Your task to perform on an android device: Turn off the flashlight Image 0: 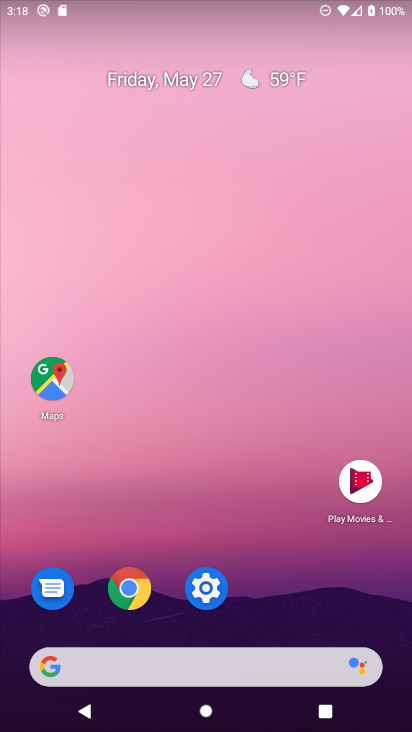
Step 0: drag from (243, 544) to (195, 72)
Your task to perform on an android device: Turn off the flashlight Image 1: 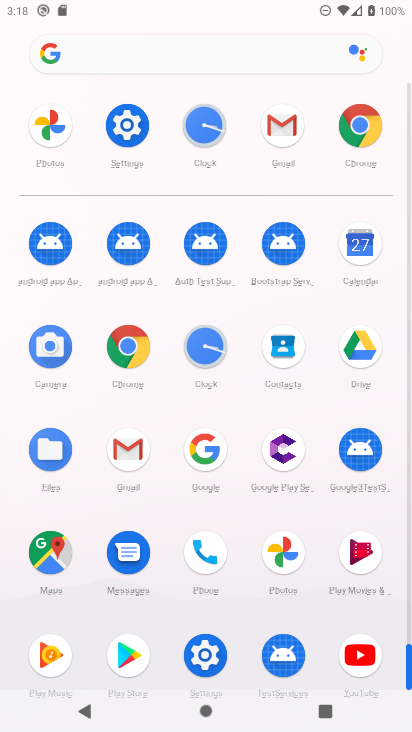
Step 1: drag from (177, 472) to (178, 50)
Your task to perform on an android device: Turn off the flashlight Image 2: 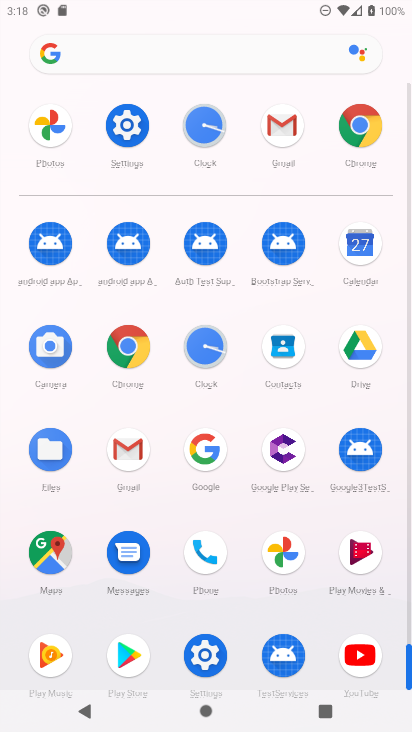
Step 2: drag from (204, 535) to (200, 189)
Your task to perform on an android device: Turn off the flashlight Image 3: 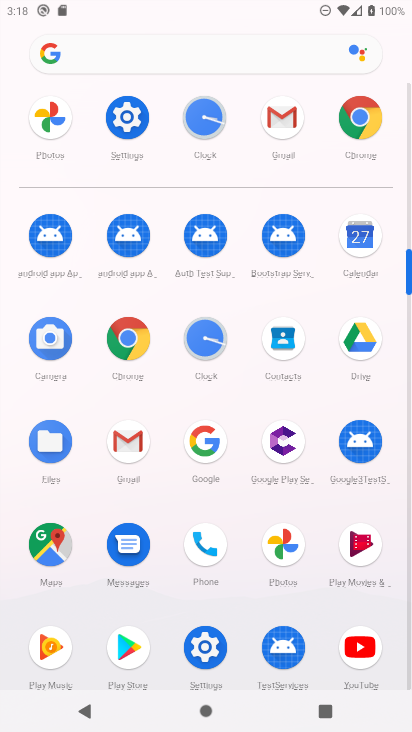
Step 3: drag from (184, 513) to (197, 28)
Your task to perform on an android device: Turn off the flashlight Image 4: 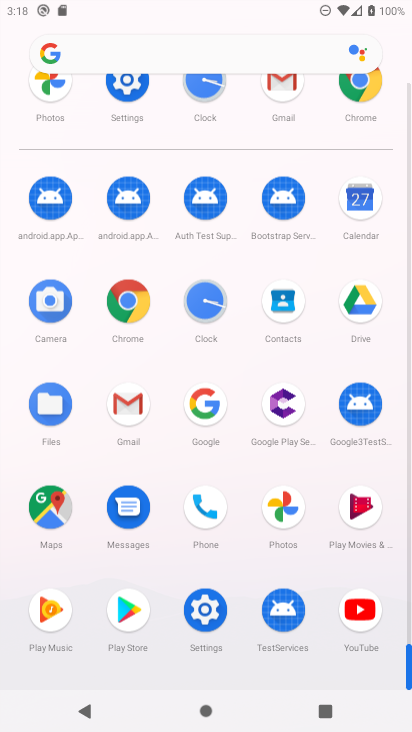
Step 4: drag from (180, 558) to (155, 97)
Your task to perform on an android device: Turn off the flashlight Image 5: 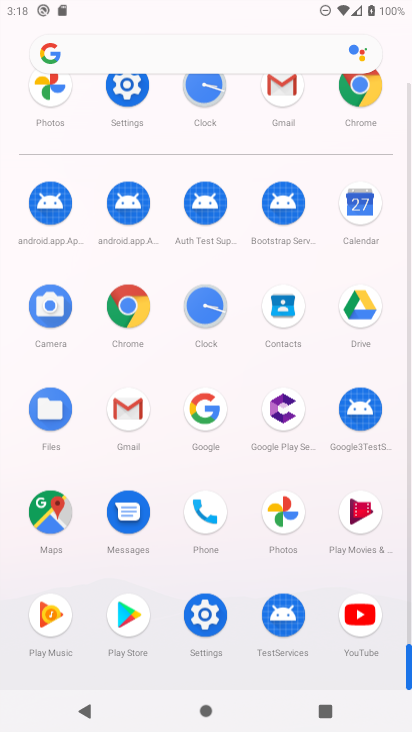
Step 5: drag from (125, 576) to (144, 68)
Your task to perform on an android device: Turn off the flashlight Image 6: 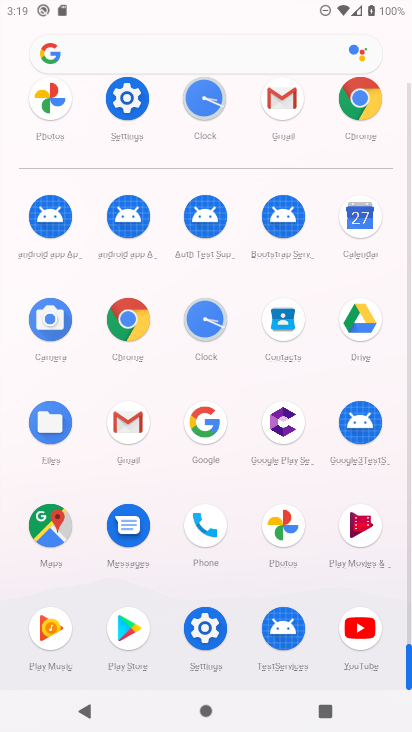
Step 6: drag from (154, 449) to (120, 72)
Your task to perform on an android device: Turn off the flashlight Image 7: 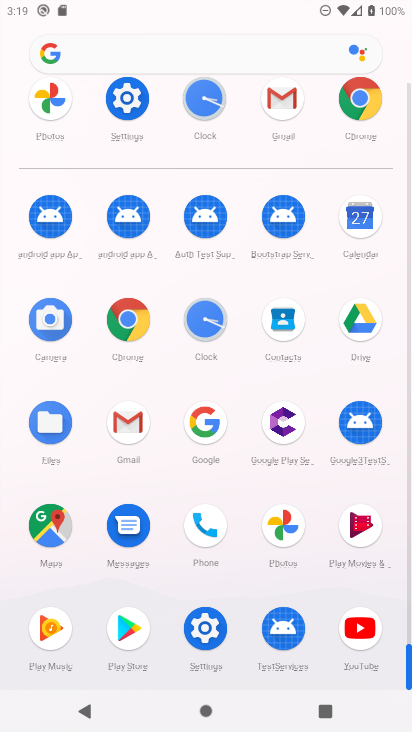
Step 7: drag from (217, 553) to (247, 7)
Your task to perform on an android device: Turn off the flashlight Image 8: 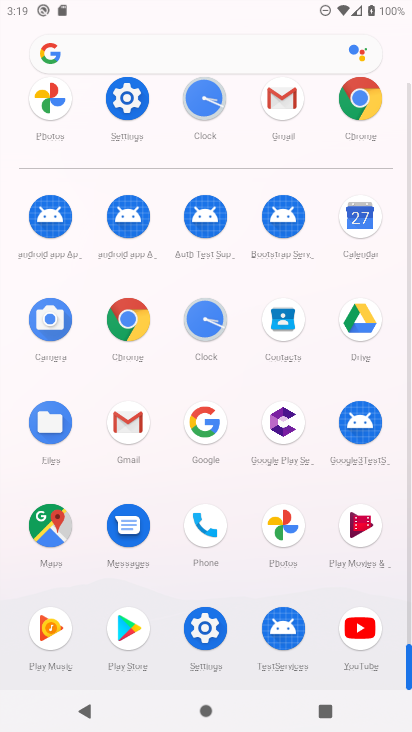
Step 8: click (121, 598)
Your task to perform on an android device: Turn off the flashlight Image 9: 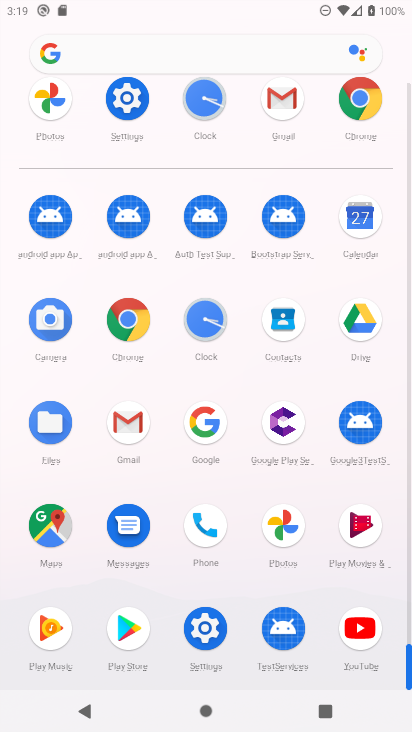
Step 9: drag from (131, 413) to (131, 69)
Your task to perform on an android device: Turn off the flashlight Image 10: 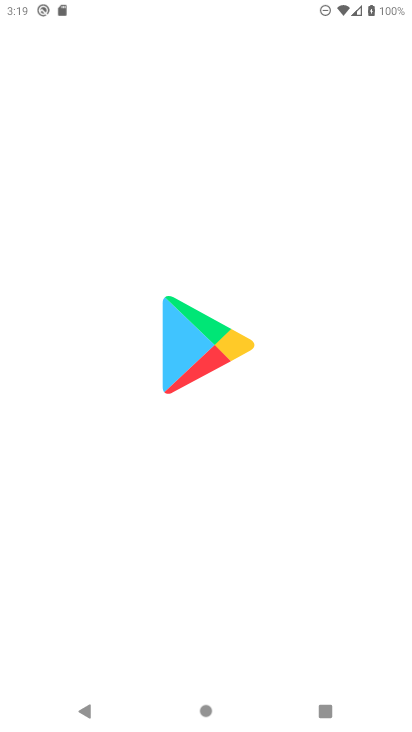
Step 10: drag from (188, 568) to (136, 33)
Your task to perform on an android device: Turn off the flashlight Image 11: 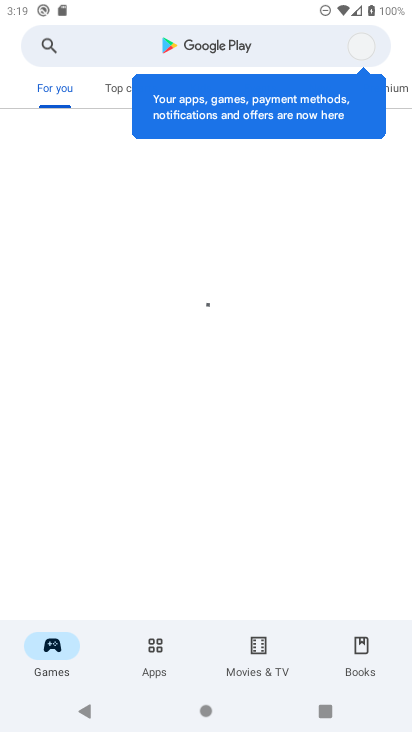
Step 11: press back button
Your task to perform on an android device: Turn off the flashlight Image 12: 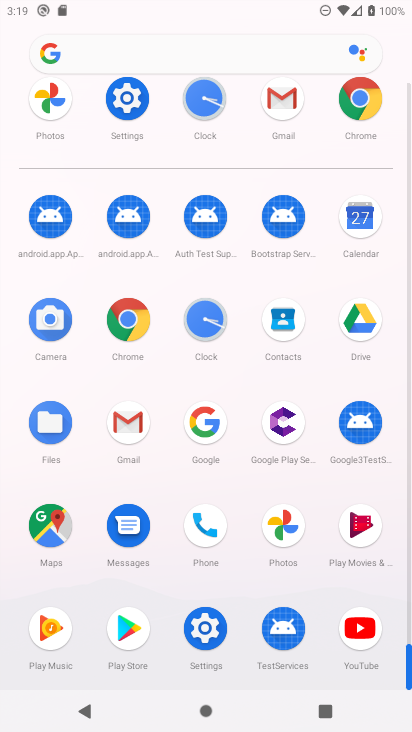
Step 12: drag from (233, 184) to (228, 84)
Your task to perform on an android device: Turn off the flashlight Image 13: 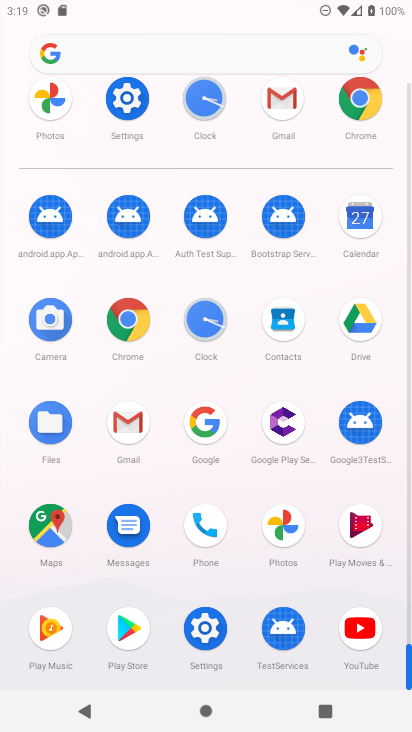
Step 13: click (265, 104)
Your task to perform on an android device: Turn off the flashlight Image 14: 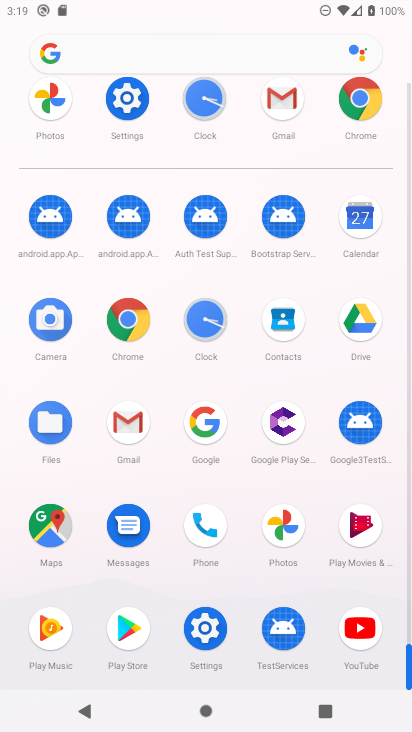
Step 14: drag from (262, 258) to (262, 119)
Your task to perform on an android device: Turn off the flashlight Image 15: 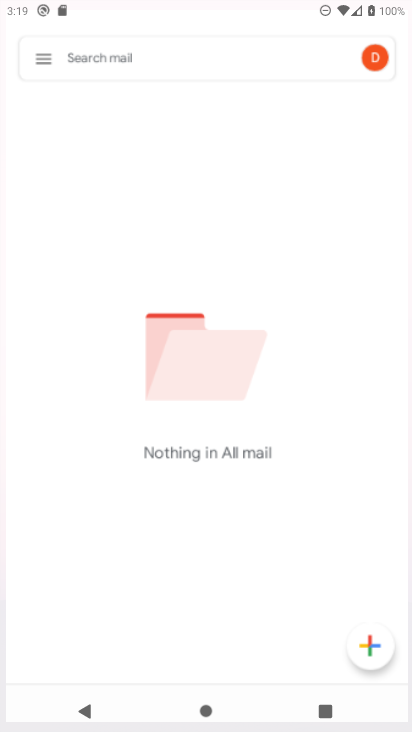
Step 15: drag from (231, 561) to (221, 50)
Your task to perform on an android device: Turn off the flashlight Image 16: 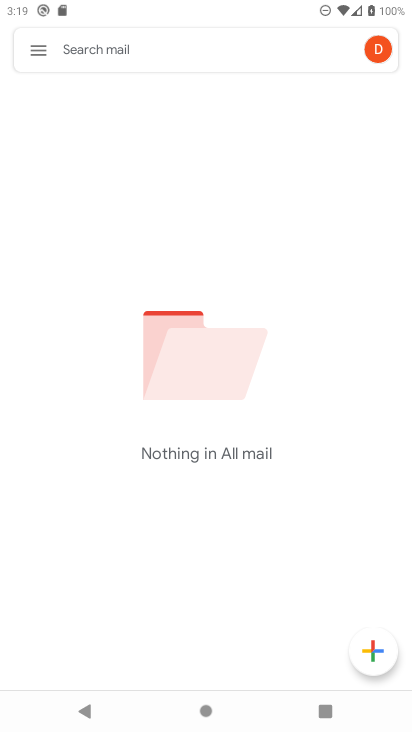
Step 16: press back button
Your task to perform on an android device: Turn off the flashlight Image 17: 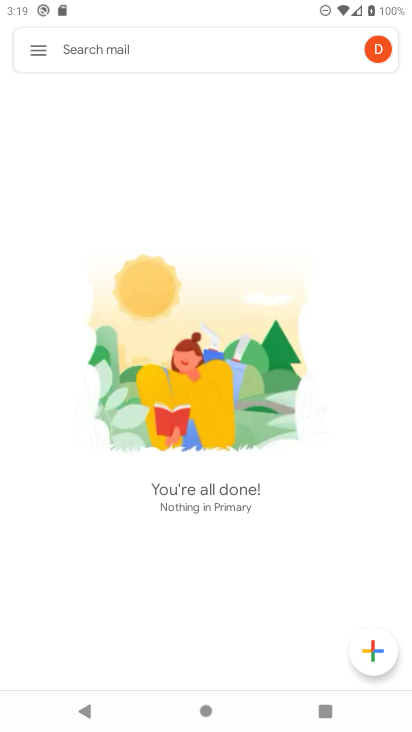
Step 17: drag from (226, 476) to (138, 98)
Your task to perform on an android device: Turn off the flashlight Image 18: 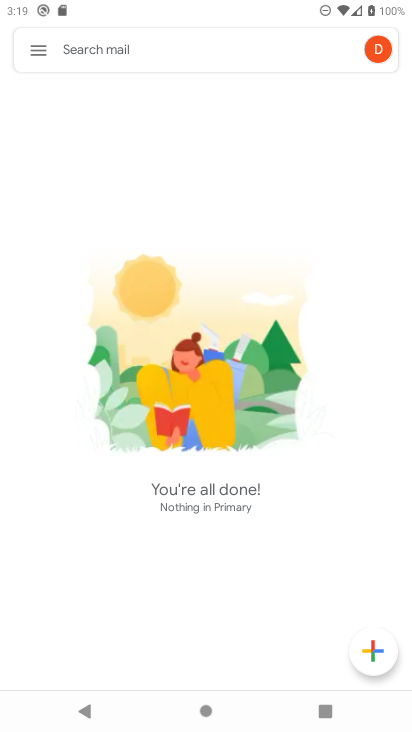
Step 18: drag from (203, 511) to (140, 24)
Your task to perform on an android device: Turn off the flashlight Image 19: 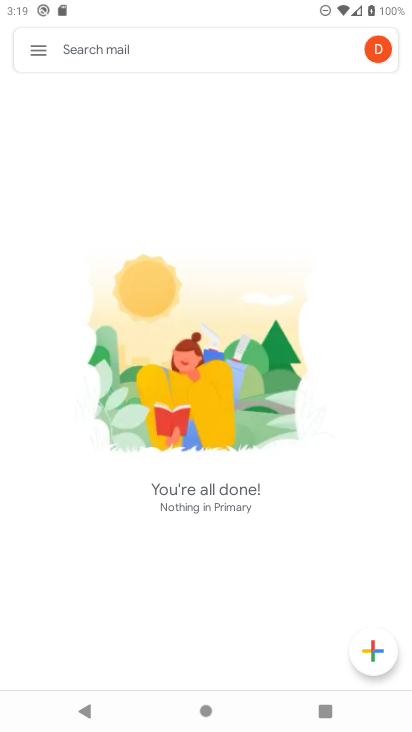
Step 19: drag from (198, 457) to (163, 55)
Your task to perform on an android device: Turn off the flashlight Image 20: 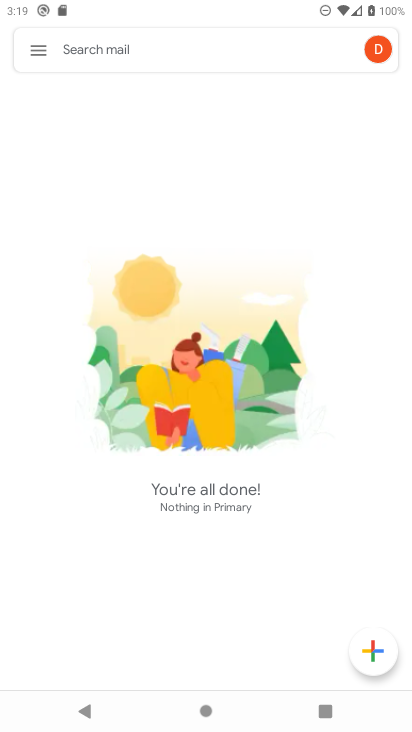
Step 20: drag from (194, 512) to (178, 38)
Your task to perform on an android device: Turn off the flashlight Image 21: 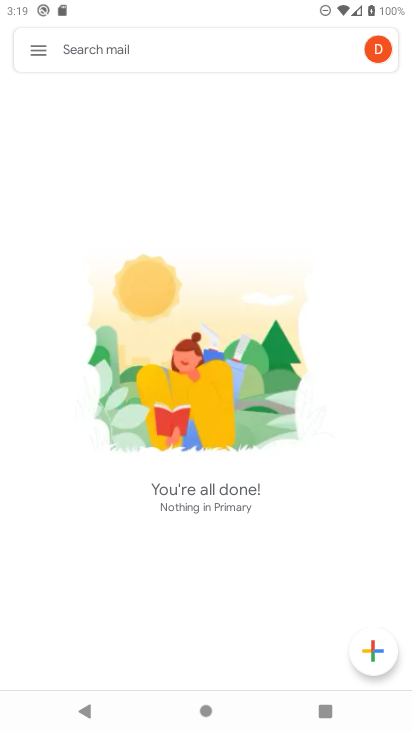
Step 21: drag from (232, 499) to (232, 6)
Your task to perform on an android device: Turn off the flashlight Image 22: 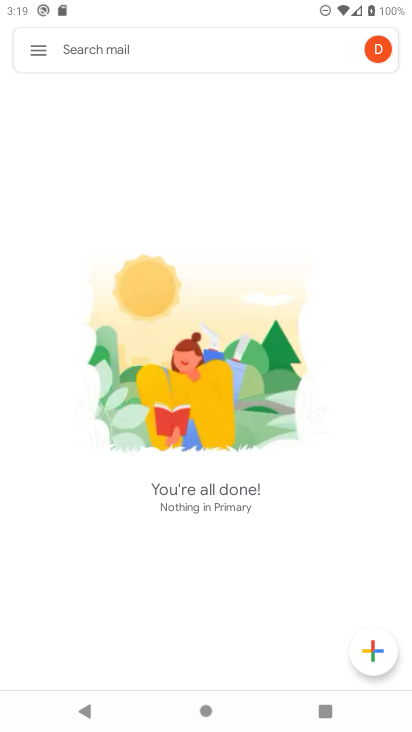
Step 22: drag from (221, 475) to (214, 90)
Your task to perform on an android device: Turn off the flashlight Image 23: 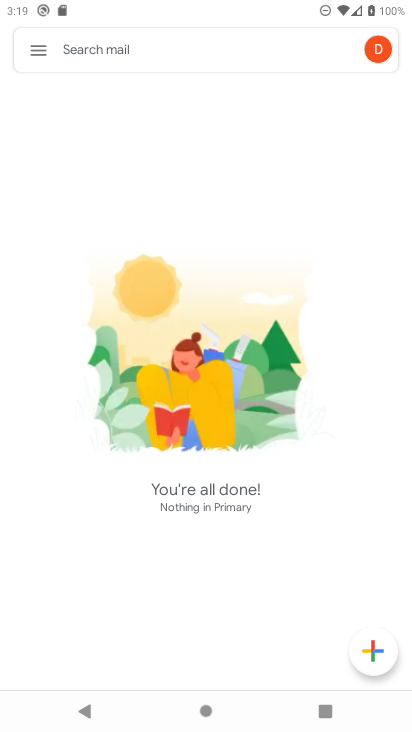
Step 23: drag from (211, 445) to (173, 57)
Your task to perform on an android device: Turn off the flashlight Image 24: 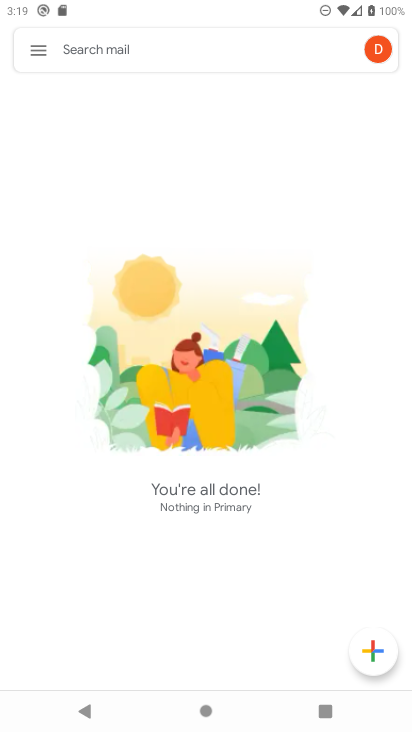
Step 24: drag from (160, 99) to (135, 16)
Your task to perform on an android device: Turn off the flashlight Image 25: 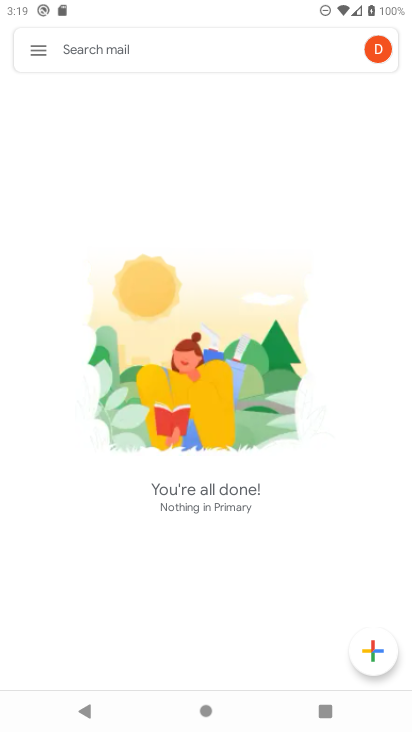
Step 25: drag from (151, 307) to (129, 8)
Your task to perform on an android device: Turn off the flashlight Image 26: 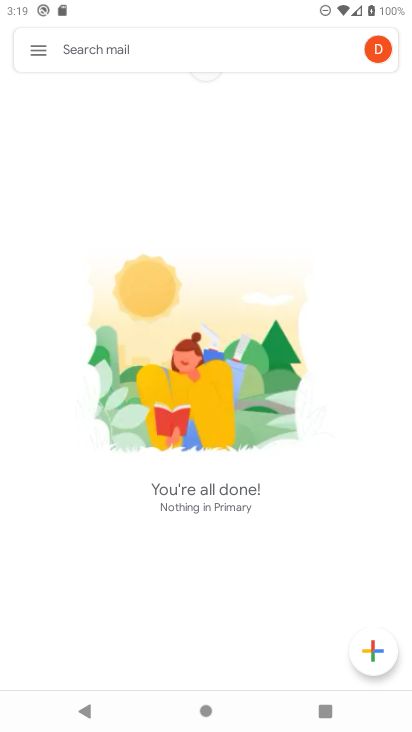
Step 26: drag from (146, 425) to (94, 4)
Your task to perform on an android device: Turn off the flashlight Image 27: 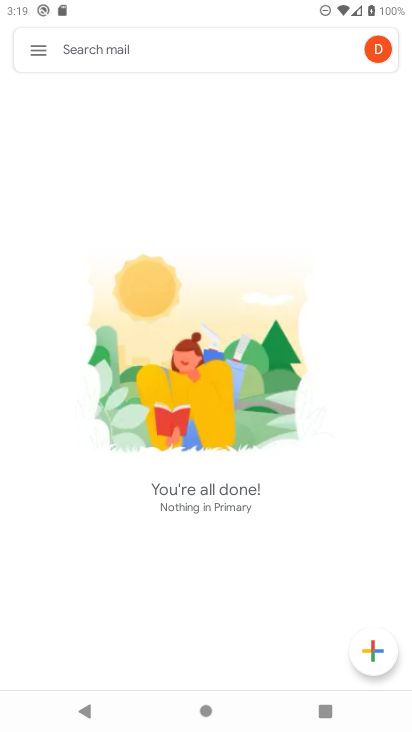
Step 27: drag from (141, 350) to (135, 0)
Your task to perform on an android device: Turn off the flashlight Image 28: 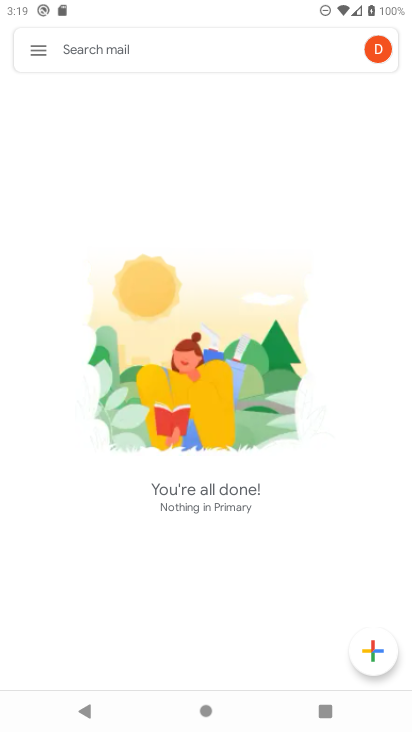
Step 28: drag from (177, 532) to (163, 9)
Your task to perform on an android device: Turn off the flashlight Image 29: 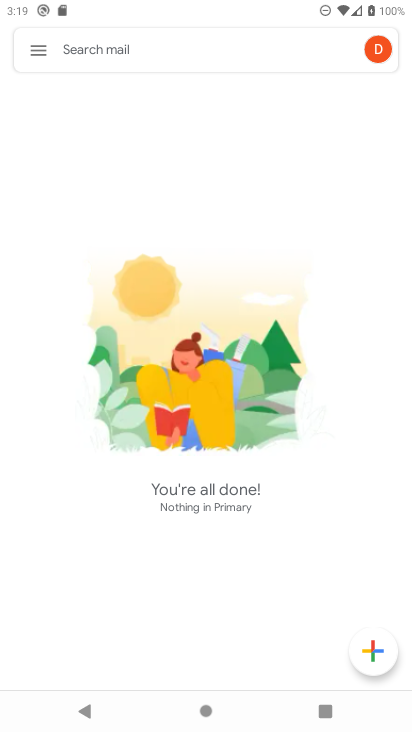
Step 29: drag from (168, 160) to (169, 0)
Your task to perform on an android device: Turn off the flashlight Image 30: 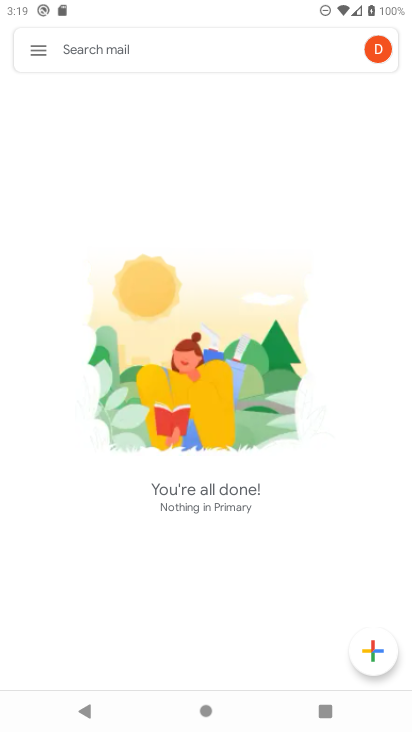
Step 30: drag from (154, 354) to (149, 0)
Your task to perform on an android device: Turn off the flashlight Image 31: 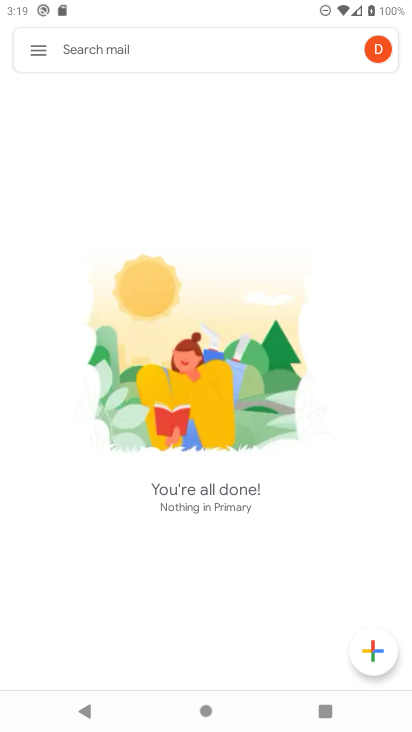
Step 31: drag from (175, 440) to (90, 96)
Your task to perform on an android device: Turn off the flashlight Image 32: 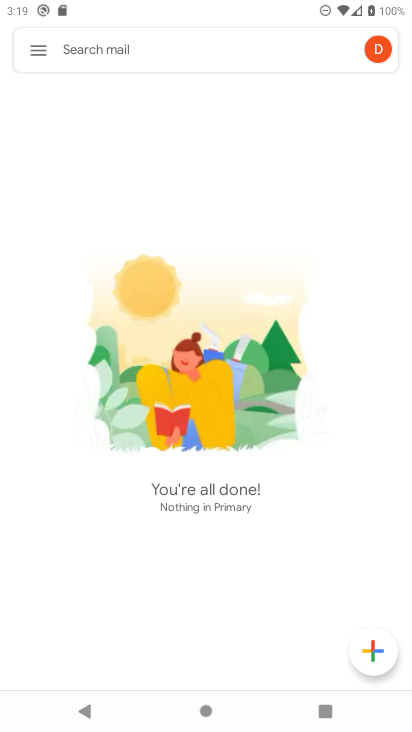
Step 32: drag from (167, 467) to (103, 39)
Your task to perform on an android device: Turn off the flashlight Image 33: 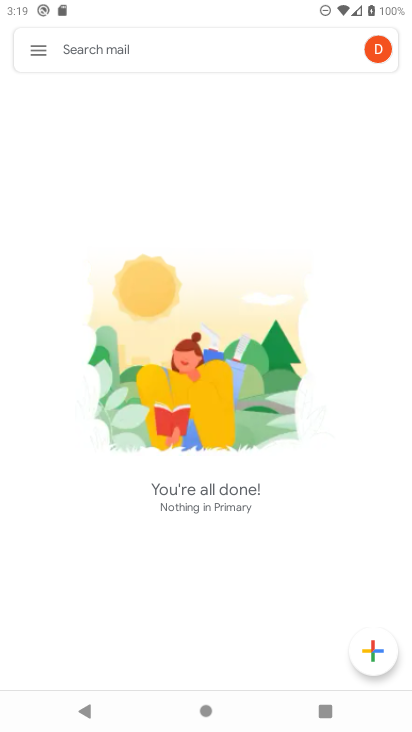
Step 33: drag from (201, 333) to (185, 73)
Your task to perform on an android device: Turn off the flashlight Image 34: 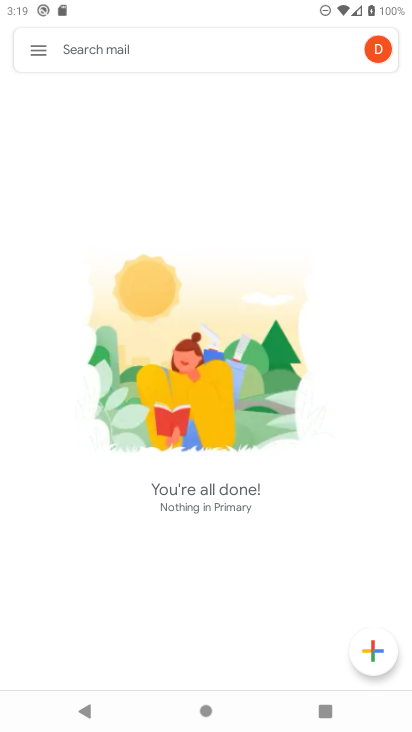
Step 34: drag from (217, 451) to (177, 145)
Your task to perform on an android device: Turn off the flashlight Image 35: 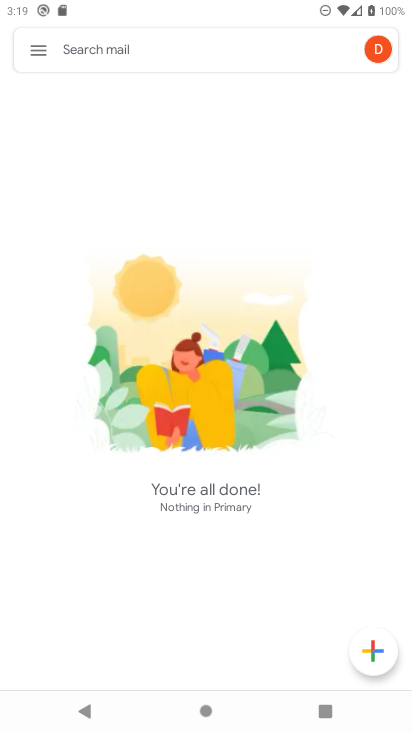
Step 35: drag from (156, 363) to (134, 135)
Your task to perform on an android device: Turn off the flashlight Image 36: 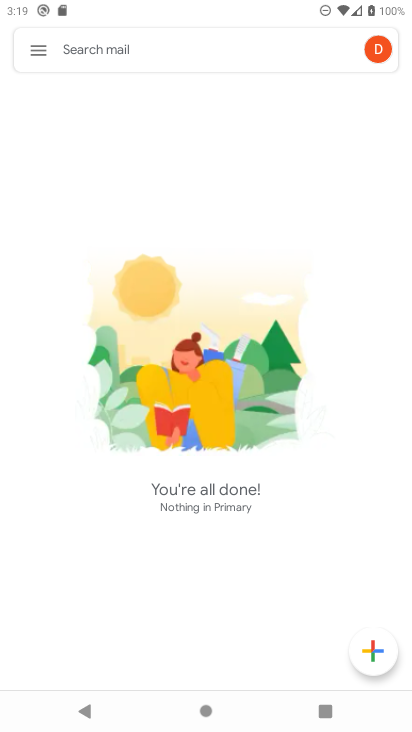
Step 36: drag from (152, 445) to (163, 105)
Your task to perform on an android device: Turn off the flashlight Image 37: 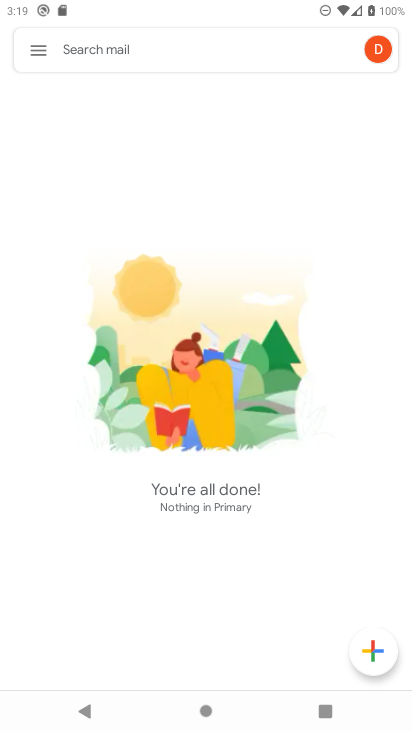
Step 37: drag from (185, 407) to (166, 48)
Your task to perform on an android device: Turn off the flashlight Image 38: 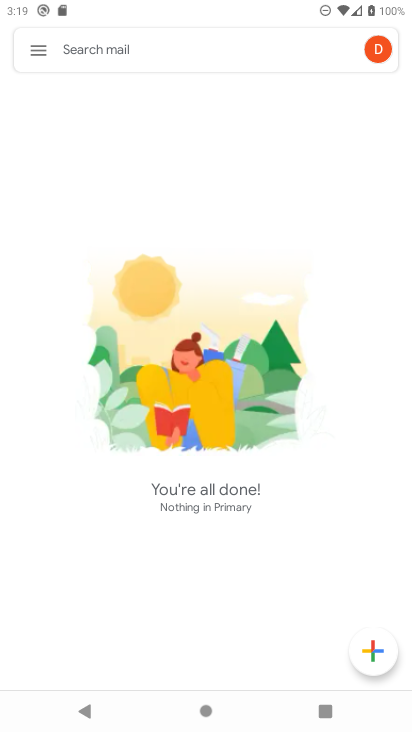
Step 38: click (238, 298)
Your task to perform on an android device: Turn off the flashlight Image 39: 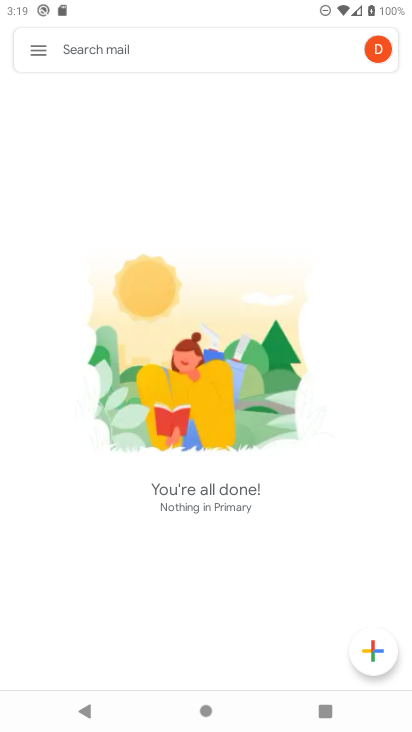
Step 39: drag from (203, 555) to (209, 82)
Your task to perform on an android device: Turn off the flashlight Image 40: 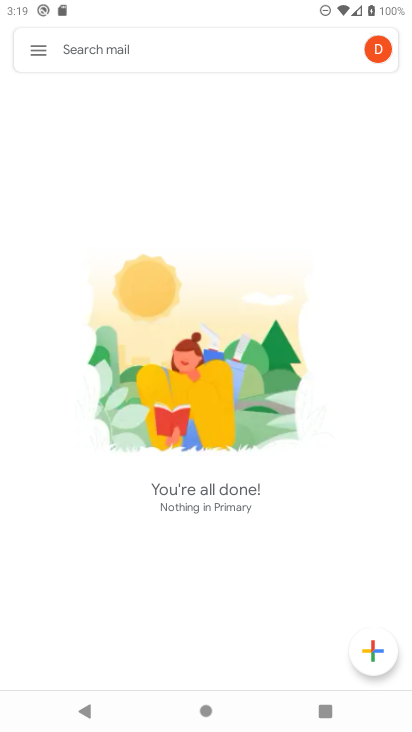
Step 40: drag from (272, 491) to (274, 7)
Your task to perform on an android device: Turn off the flashlight Image 41: 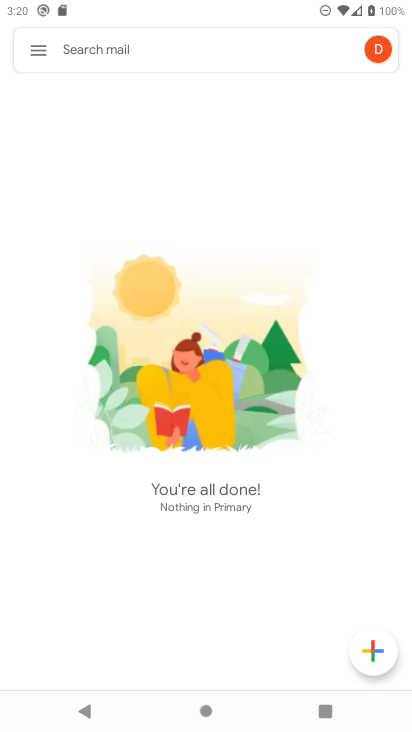
Step 41: press back button
Your task to perform on an android device: Turn off the flashlight Image 42: 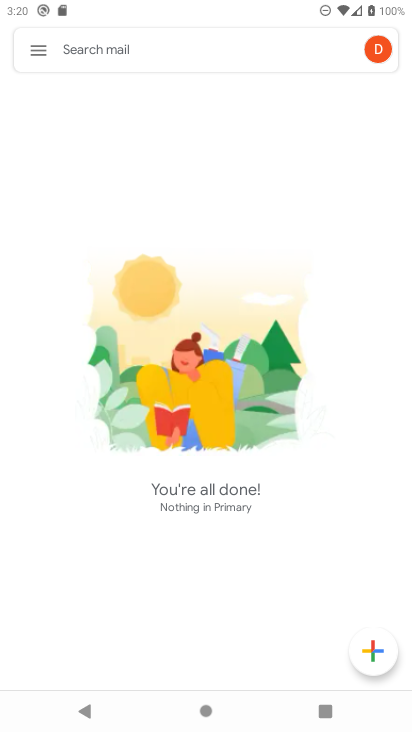
Step 42: press back button
Your task to perform on an android device: Turn off the flashlight Image 43: 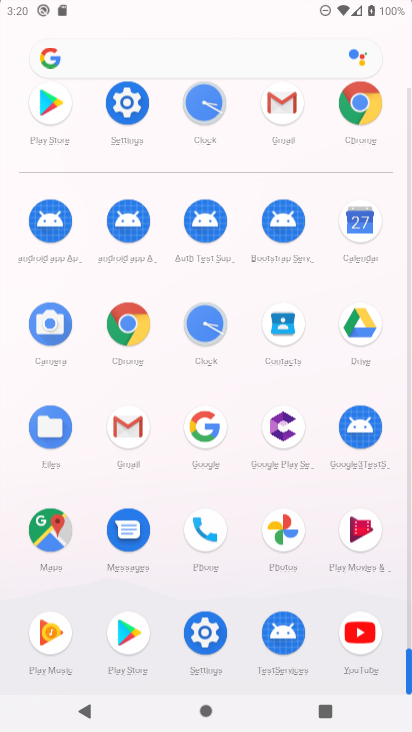
Step 43: press back button
Your task to perform on an android device: Turn off the flashlight Image 44: 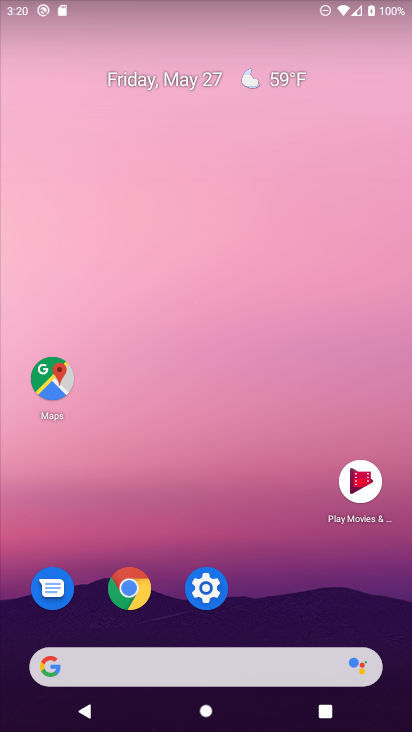
Step 44: press back button
Your task to perform on an android device: Turn off the flashlight Image 45: 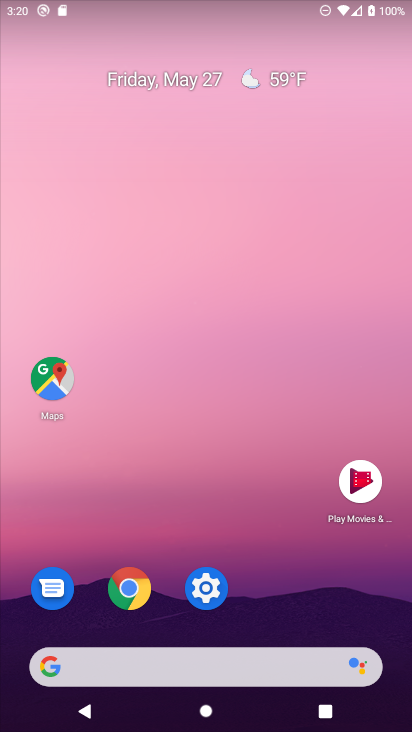
Step 45: drag from (277, 426) to (241, 70)
Your task to perform on an android device: Turn off the flashlight Image 46: 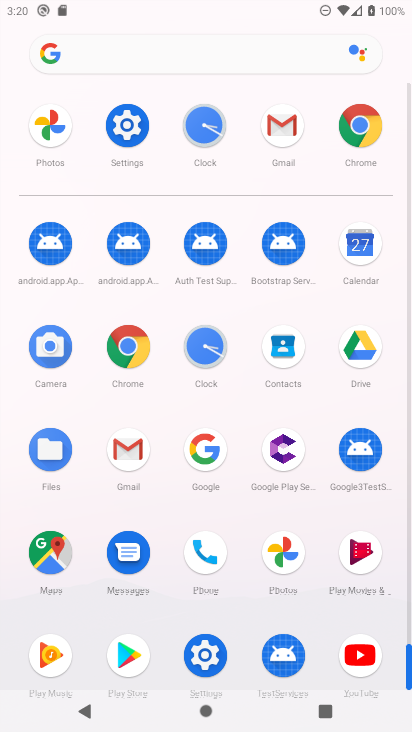
Step 46: drag from (206, 552) to (173, 68)
Your task to perform on an android device: Turn off the flashlight Image 47: 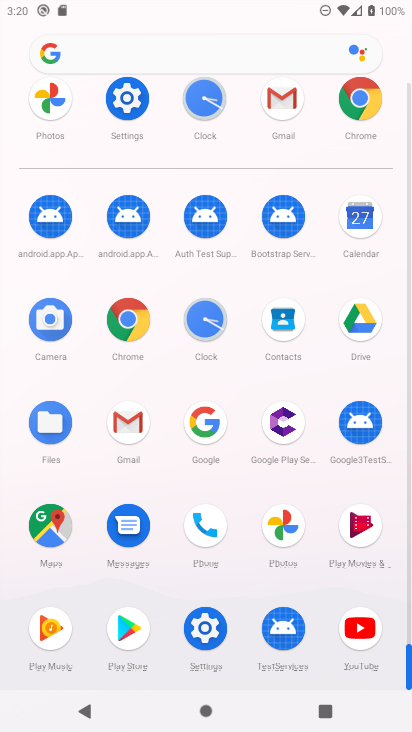
Step 47: drag from (233, 475) to (180, 109)
Your task to perform on an android device: Turn off the flashlight Image 48: 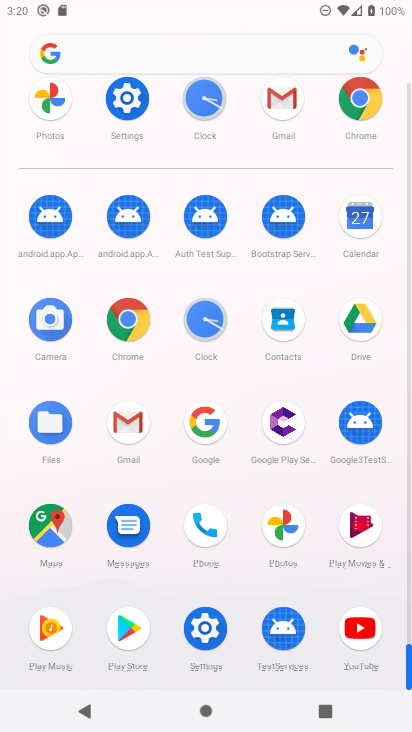
Step 48: drag from (212, 594) to (178, 209)
Your task to perform on an android device: Turn off the flashlight Image 49: 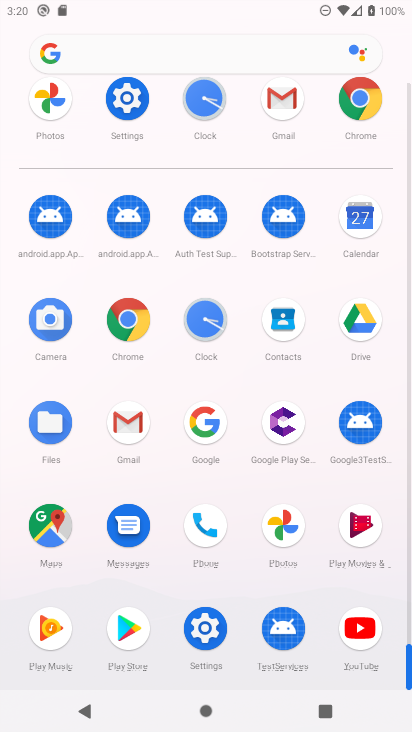
Step 49: drag from (229, 242) to (203, 120)
Your task to perform on an android device: Turn off the flashlight Image 50: 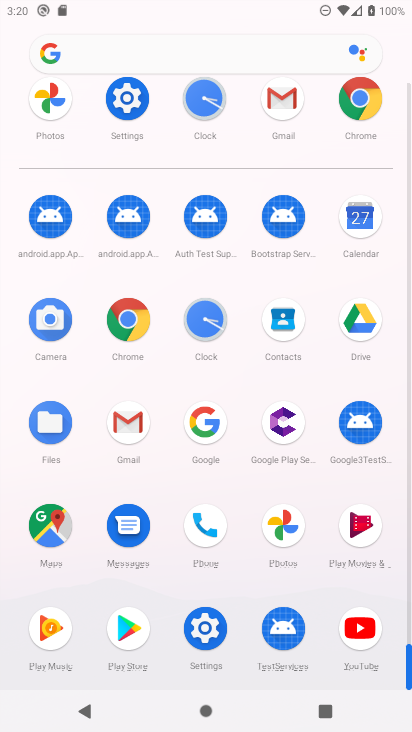
Step 50: click (206, 69)
Your task to perform on an android device: Turn off the flashlight Image 51: 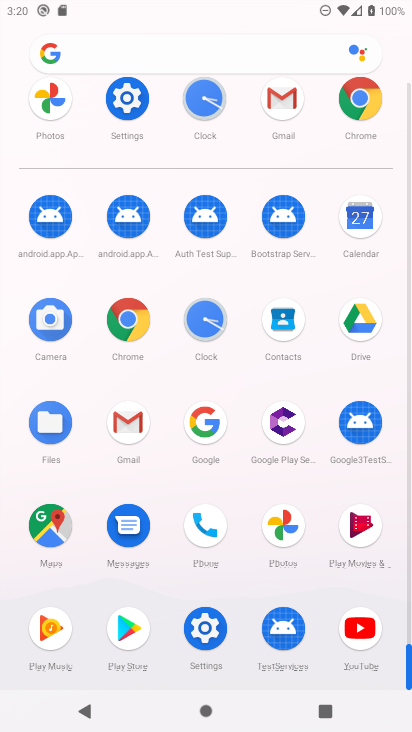
Step 51: drag from (272, 245) to (224, 60)
Your task to perform on an android device: Turn off the flashlight Image 52: 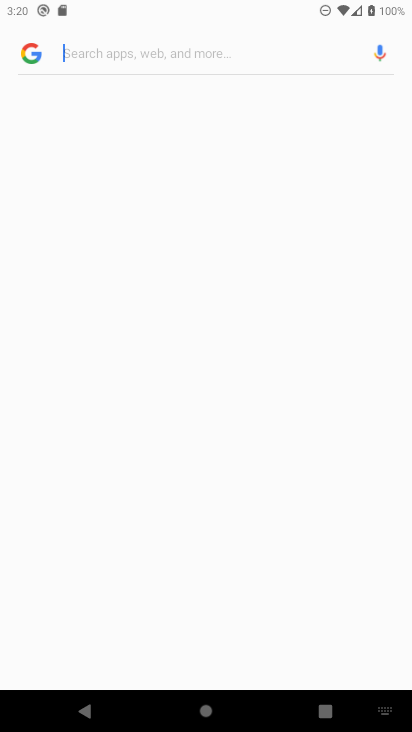
Step 52: click (226, 116)
Your task to perform on an android device: Turn off the flashlight Image 53: 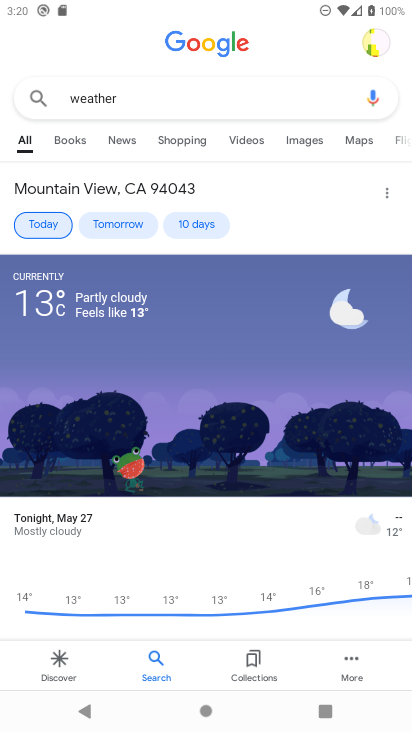
Step 53: task complete